Your task to perform on an android device: toggle improve location accuracy Image 0: 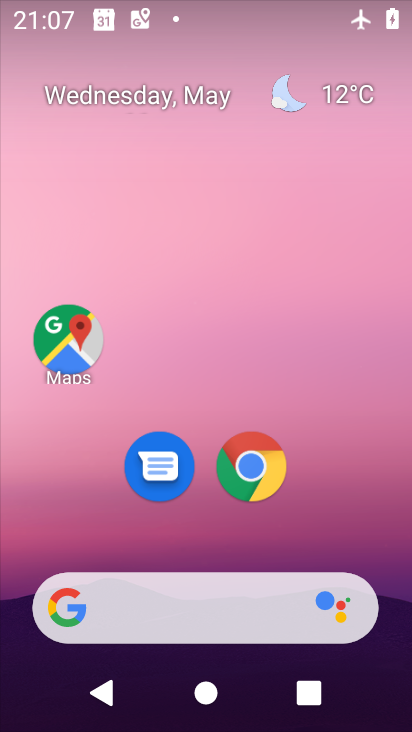
Step 0: press home button
Your task to perform on an android device: toggle improve location accuracy Image 1: 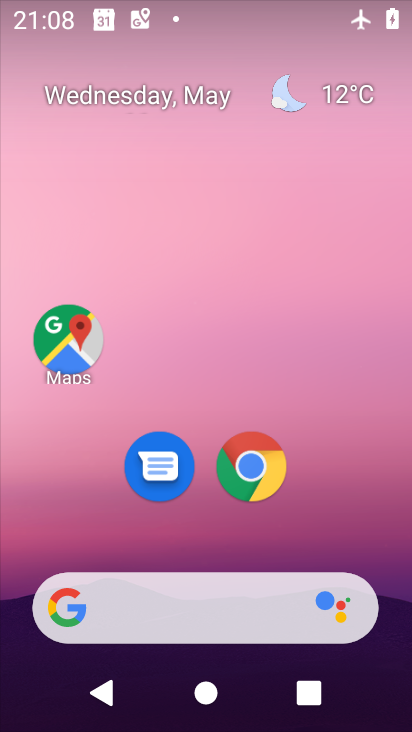
Step 1: drag from (212, 520) to (218, 354)
Your task to perform on an android device: toggle improve location accuracy Image 2: 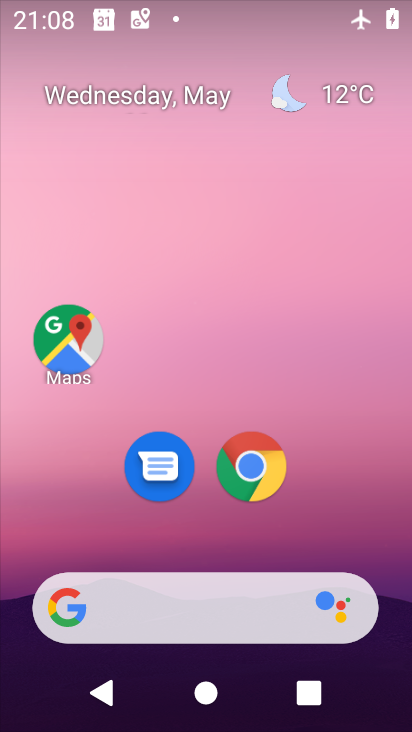
Step 2: drag from (220, 353) to (248, 134)
Your task to perform on an android device: toggle improve location accuracy Image 3: 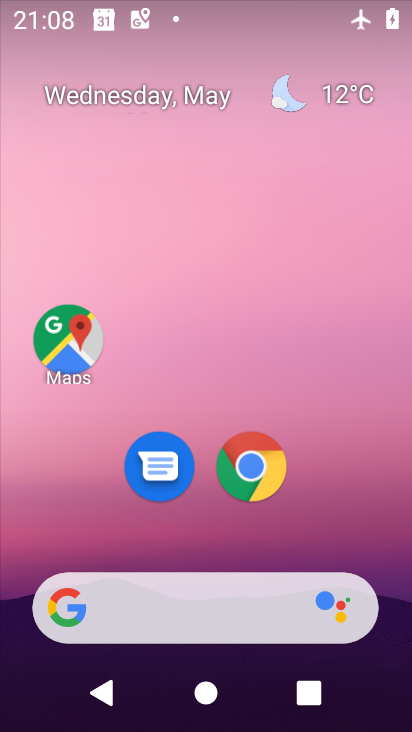
Step 3: drag from (205, 528) to (226, 84)
Your task to perform on an android device: toggle improve location accuracy Image 4: 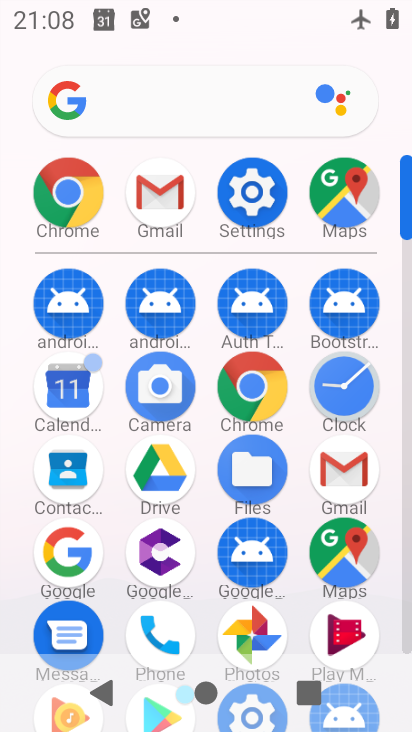
Step 4: click (255, 182)
Your task to perform on an android device: toggle improve location accuracy Image 5: 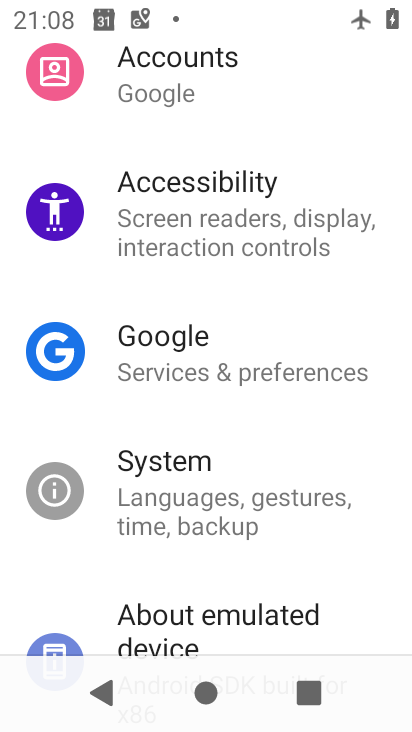
Step 5: drag from (207, 105) to (209, 548)
Your task to perform on an android device: toggle improve location accuracy Image 6: 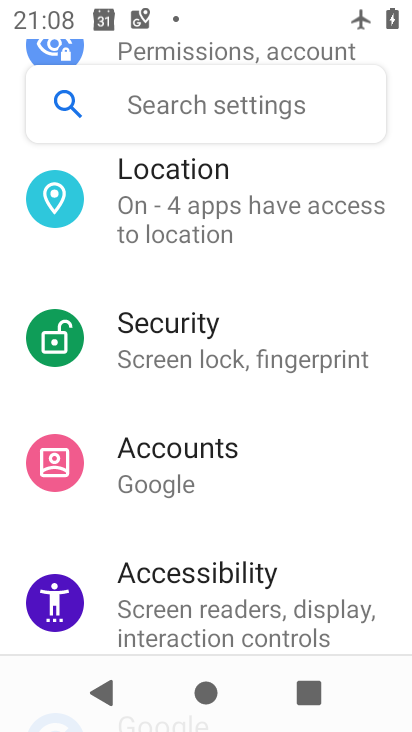
Step 6: click (193, 222)
Your task to perform on an android device: toggle improve location accuracy Image 7: 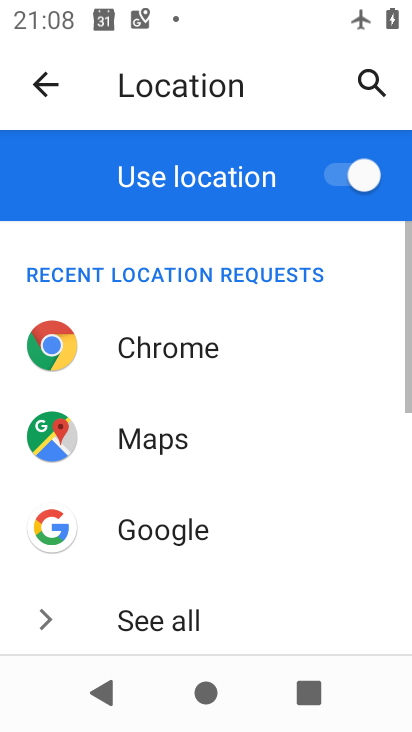
Step 7: drag from (183, 562) to (207, 131)
Your task to perform on an android device: toggle improve location accuracy Image 8: 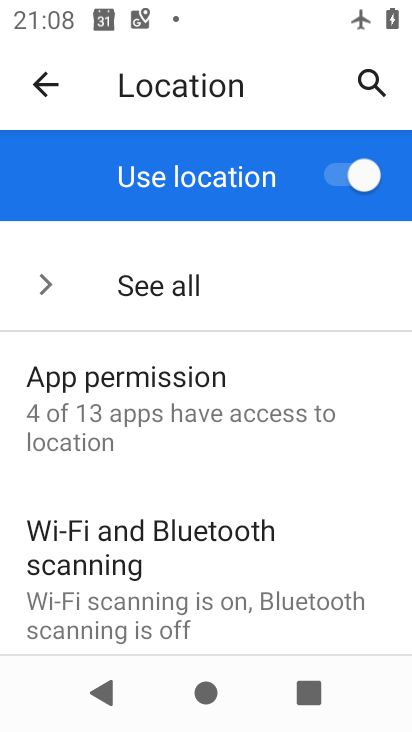
Step 8: drag from (198, 548) to (195, 91)
Your task to perform on an android device: toggle improve location accuracy Image 9: 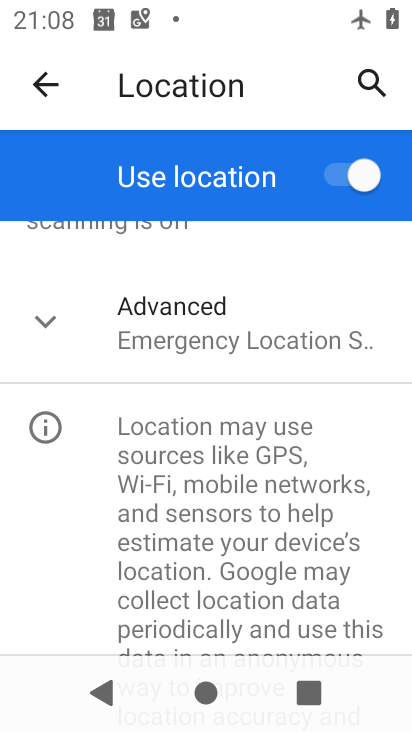
Step 9: click (45, 327)
Your task to perform on an android device: toggle improve location accuracy Image 10: 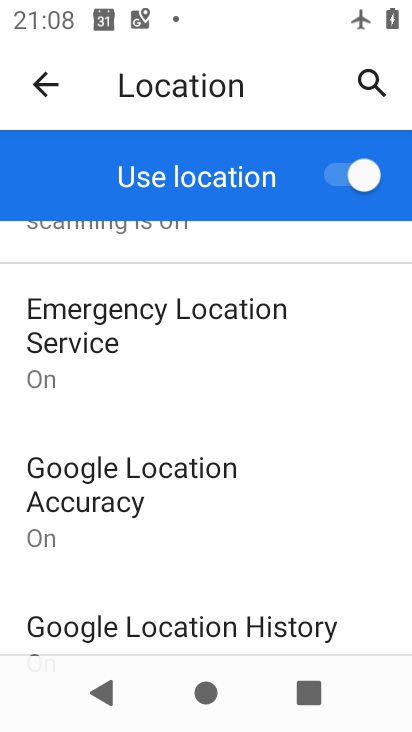
Step 10: click (120, 512)
Your task to perform on an android device: toggle improve location accuracy Image 11: 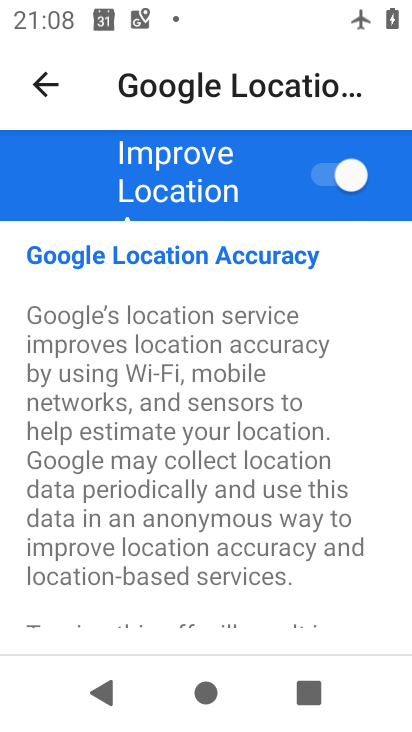
Step 11: click (325, 171)
Your task to perform on an android device: toggle improve location accuracy Image 12: 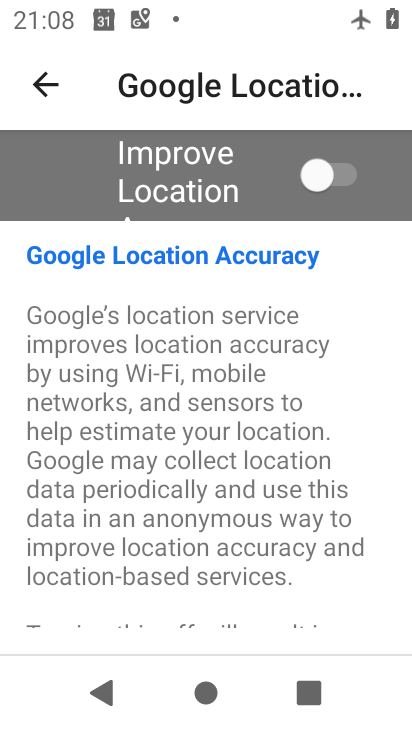
Step 12: task complete